Your task to perform on an android device: turn on bluetooth scan Image 0: 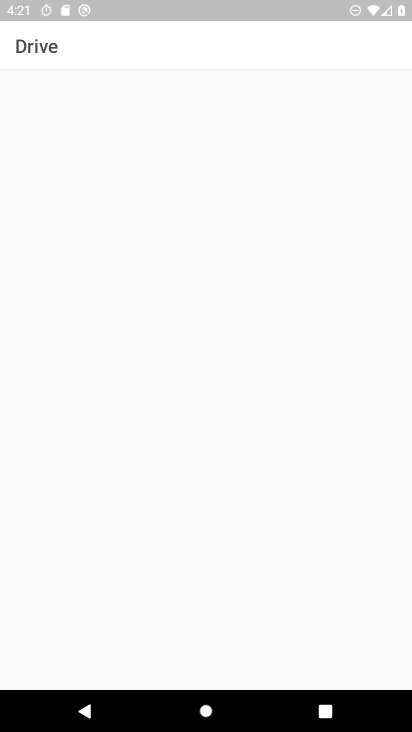
Step 0: click (195, 435)
Your task to perform on an android device: turn on bluetooth scan Image 1: 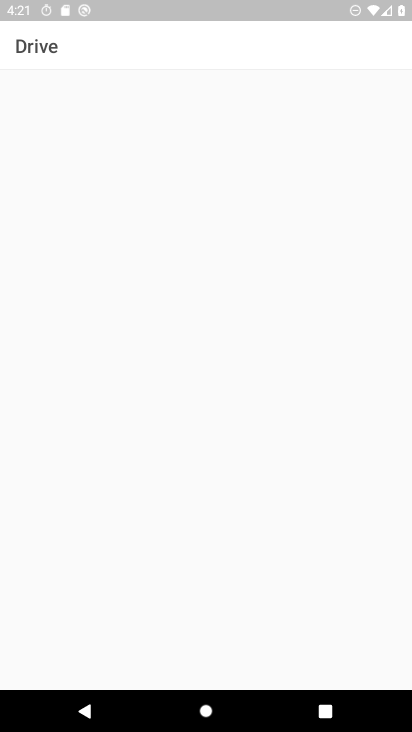
Step 1: press home button
Your task to perform on an android device: turn on bluetooth scan Image 2: 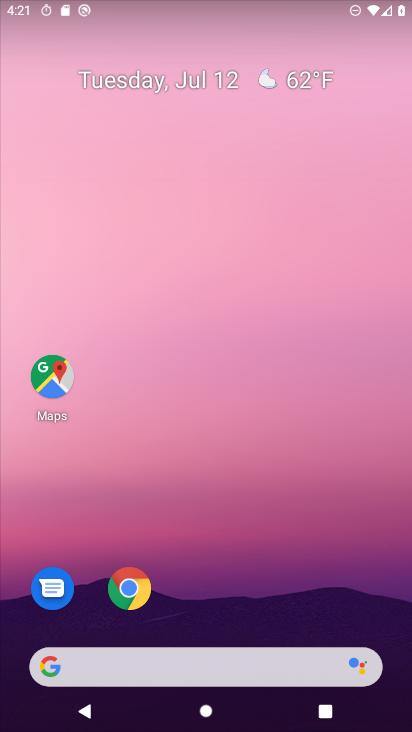
Step 2: drag from (214, 336) to (265, 73)
Your task to perform on an android device: turn on bluetooth scan Image 3: 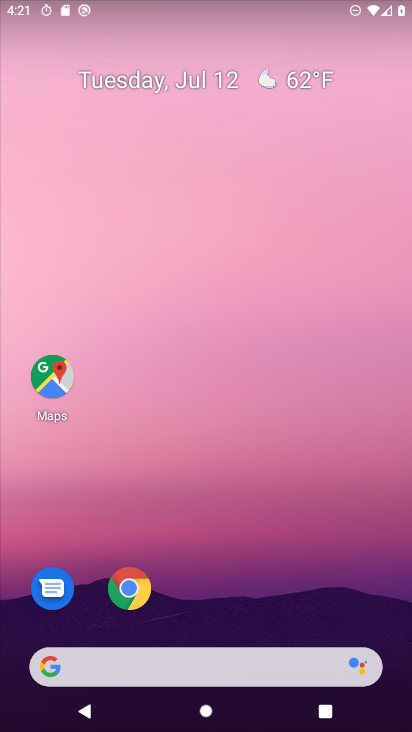
Step 3: drag from (233, 561) to (324, 6)
Your task to perform on an android device: turn on bluetooth scan Image 4: 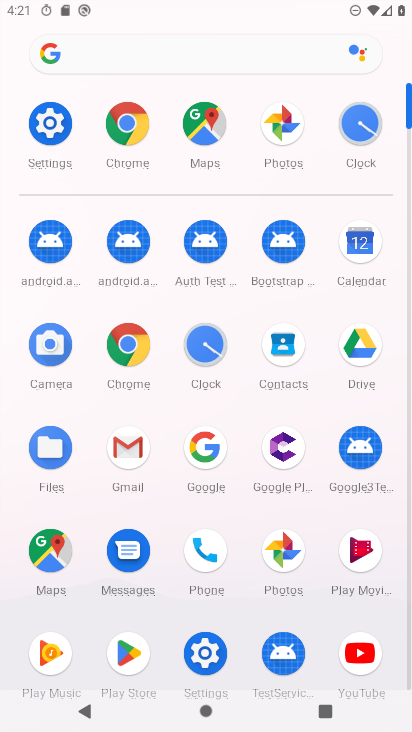
Step 4: click (206, 657)
Your task to perform on an android device: turn on bluetooth scan Image 5: 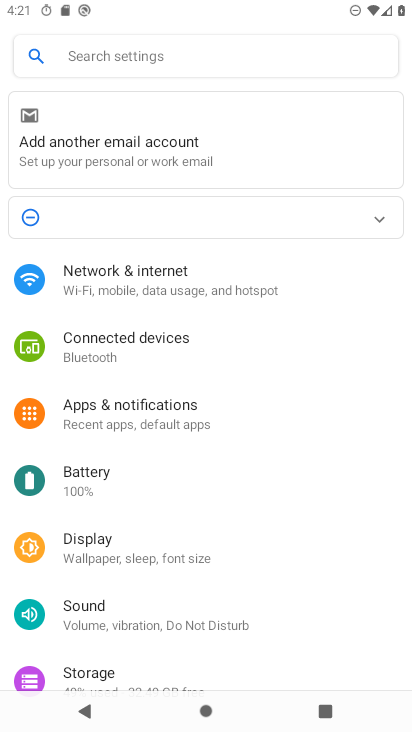
Step 5: drag from (147, 657) to (184, 464)
Your task to perform on an android device: turn on bluetooth scan Image 6: 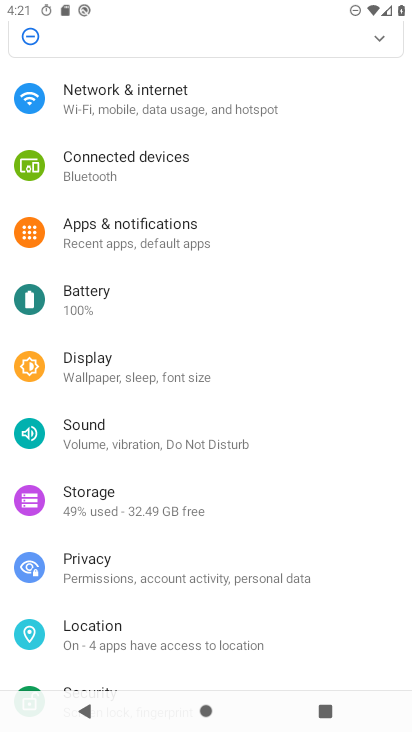
Step 6: click (99, 635)
Your task to perform on an android device: turn on bluetooth scan Image 7: 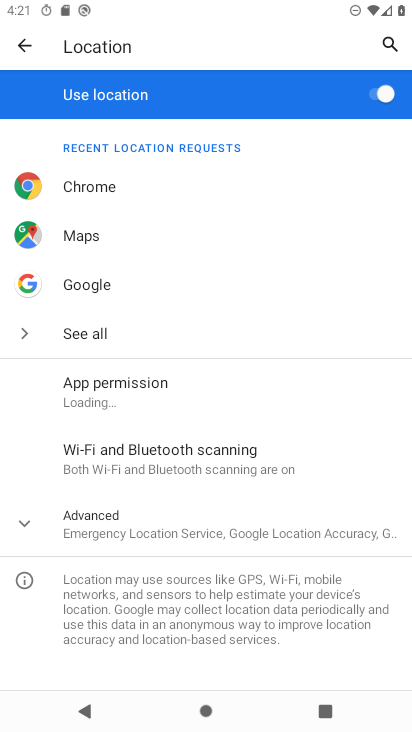
Step 7: click (264, 465)
Your task to perform on an android device: turn on bluetooth scan Image 8: 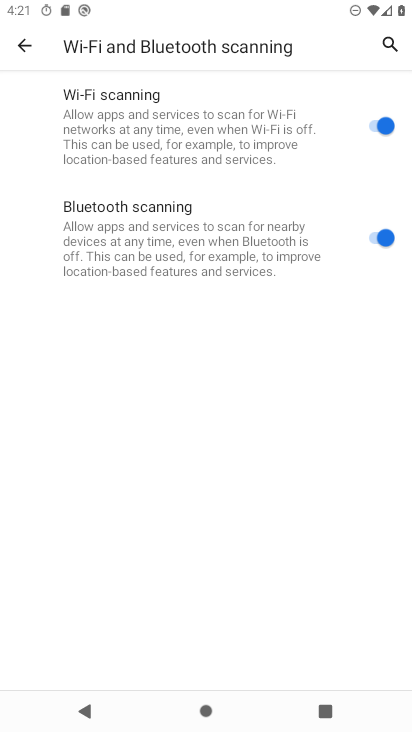
Step 8: task complete